Your task to perform on an android device: turn on priority inbox in the gmail app Image 0: 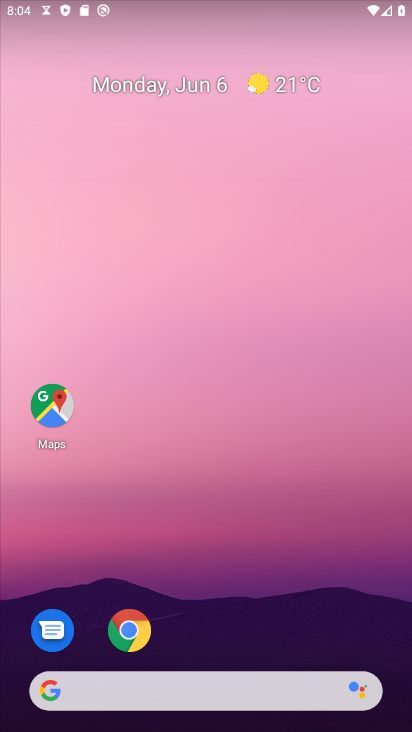
Step 0: drag from (266, 639) to (233, 79)
Your task to perform on an android device: turn on priority inbox in the gmail app Image 1: 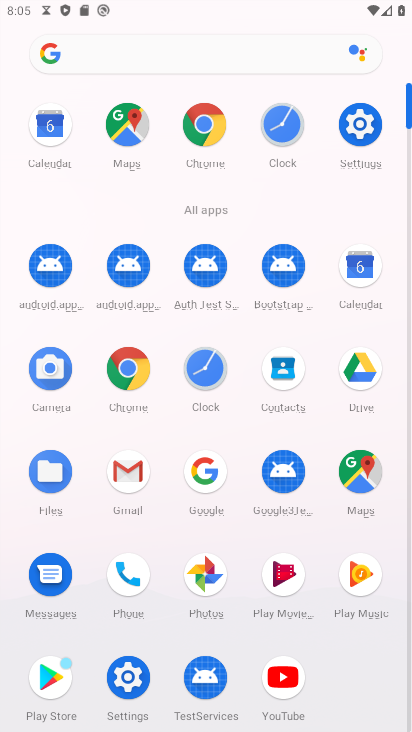
Step 1: click (126, 470)
Your task to perform on an android device: turn on priority inbox in the gmail app Image 2: 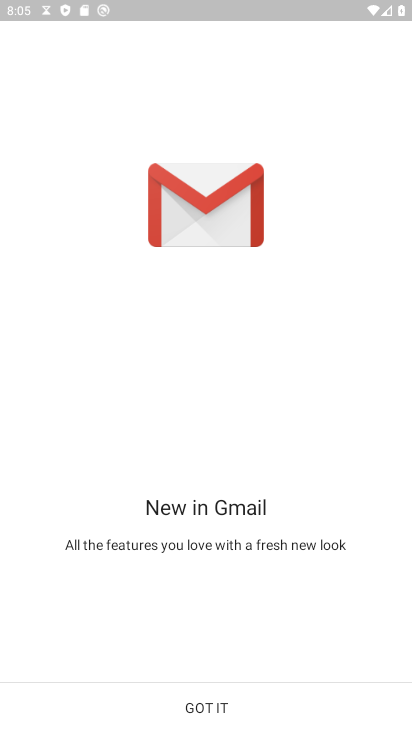
Step 2: click (197, 706)
Your task to perform on an android device: turn on priority inbox in the gmail app Image 3: 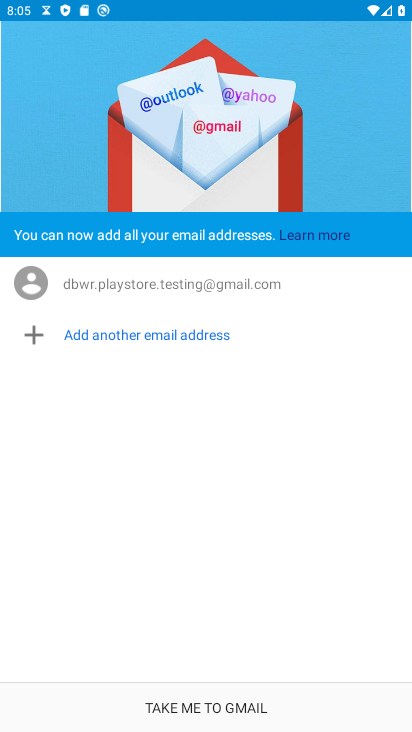
Step 3: click (197, 706)
Your task to perform on an android device: turn on priority inbox in the gmail app Image 4: 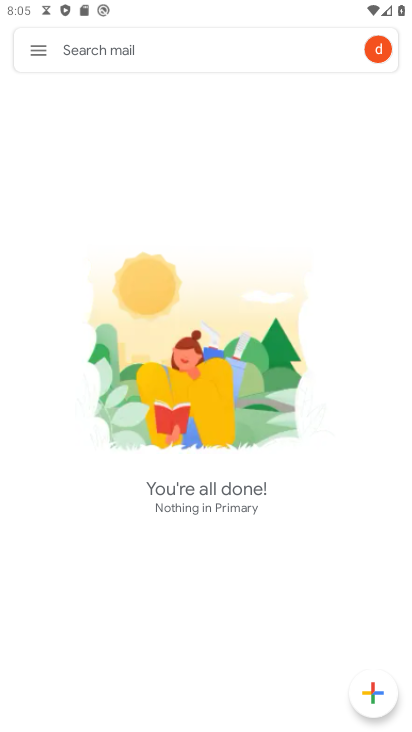
Step 4: click (39, 47)
Your task to perform on an android device: turn on priority inbox in the gmail app Image 5: 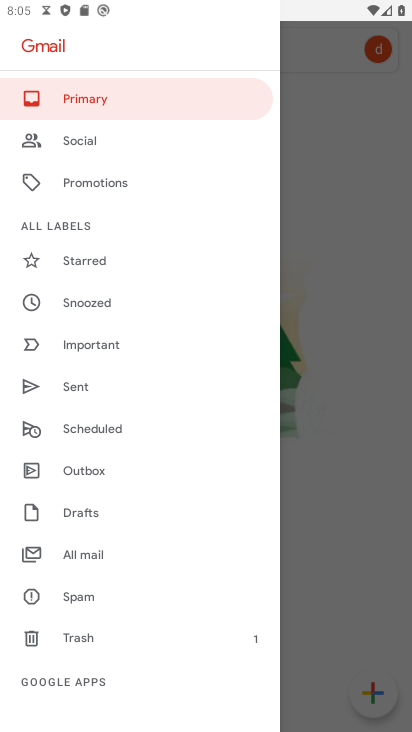
Step 5: drag from (105, 538) to (130, 324)
Your task to perform on an android device: turn on priority inbox in the gmail app Image 6: 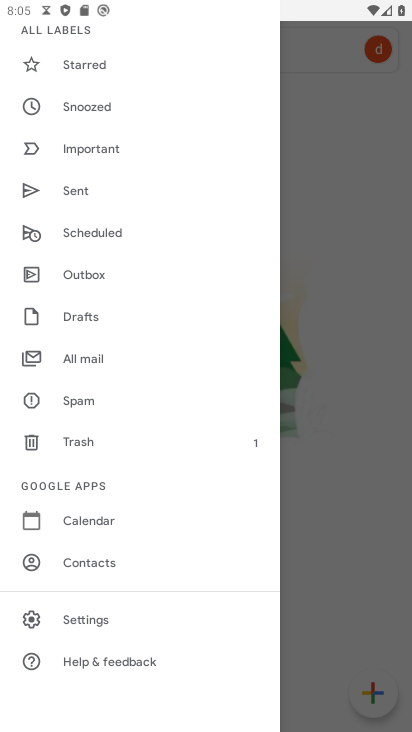
Step 6: click (111, 619)
Your task to perform on an android device: turn on priority inbox in the gmail app Image 7: 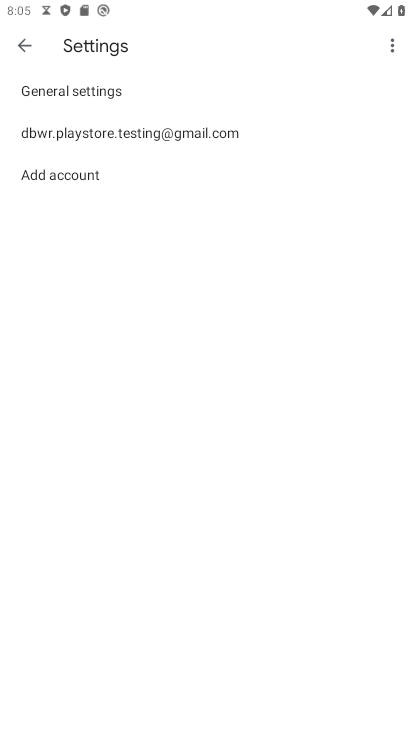
Step 7: click (115, 141)
Your task to perform on an android device: turn on priority inbox in the gmail app Image 8: 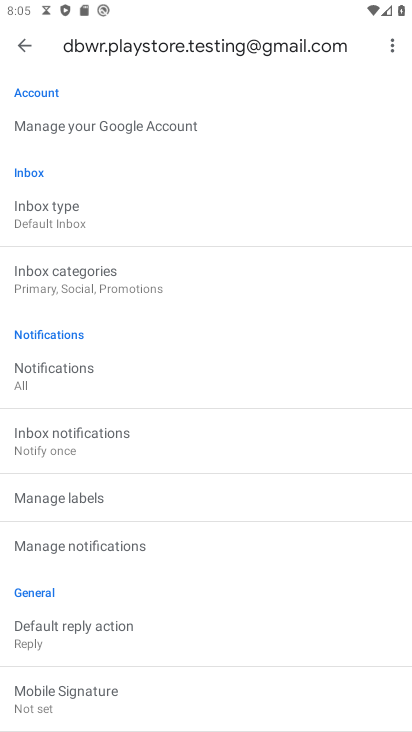
Step 8: click (70, 216)
Your task to perform on an android device: turn on priority inbox in the gmail app Image 9: 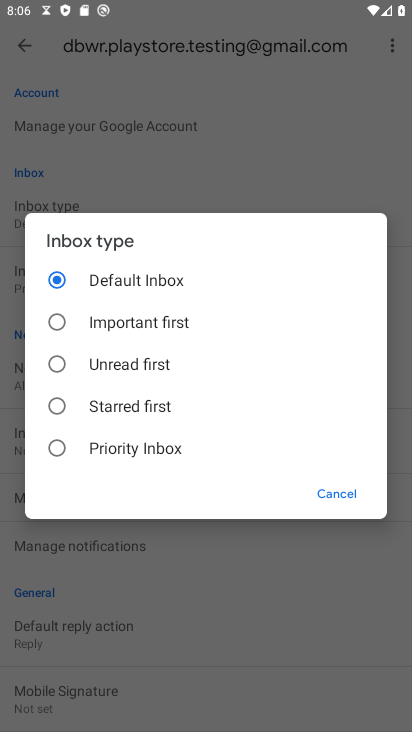
Step 9: click (55, 452)
Your task to perform on an android device: turn on priority inbox in the gmail app Image 10: 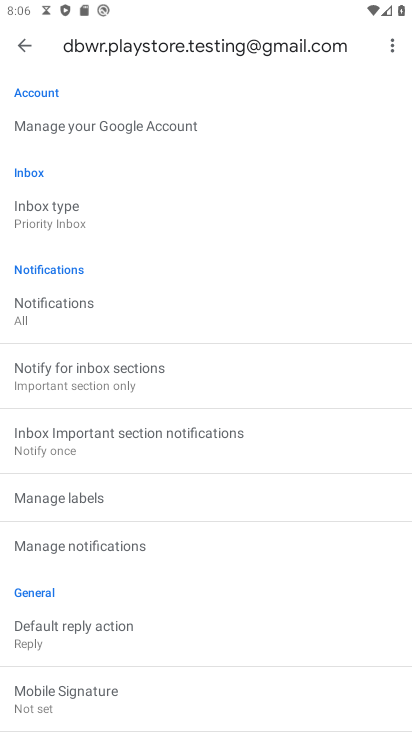
Step 10: task complete